Your task to perform on an android device: change notification settings in the gmail app Image 0: 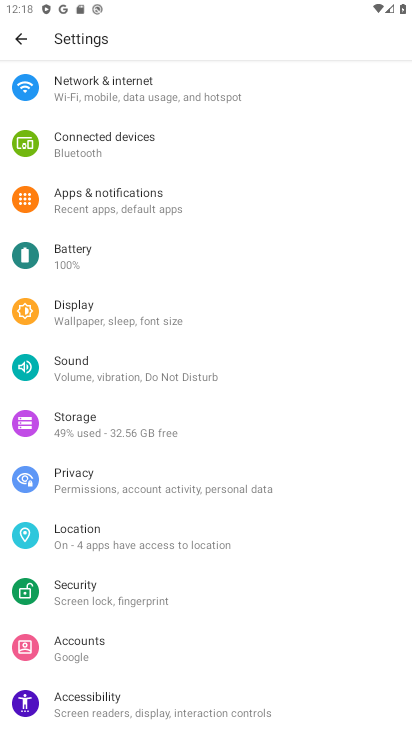
Step 0: click (116, 210)
Your task to perform on an android device: change notification settings in the gmail app Image 1: 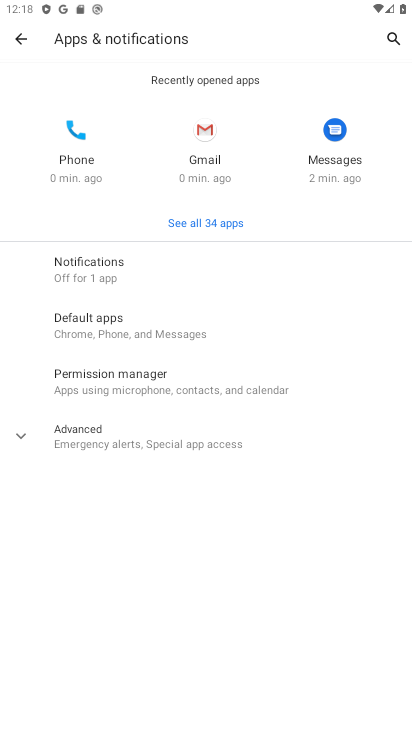
Step 1: drag from (114, 406) to (156, 567)
Your task to perform on an android device: change notification settings in the gmail app Image 2: 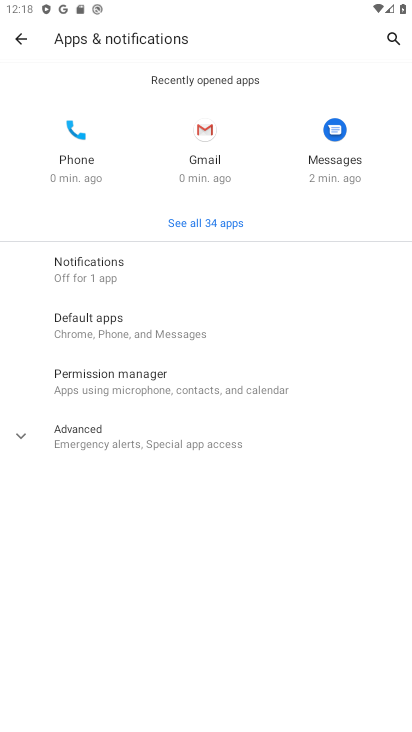
Step 2: press home button
Your task to perform on an android device: change notification settings in the gmail app Image 3: 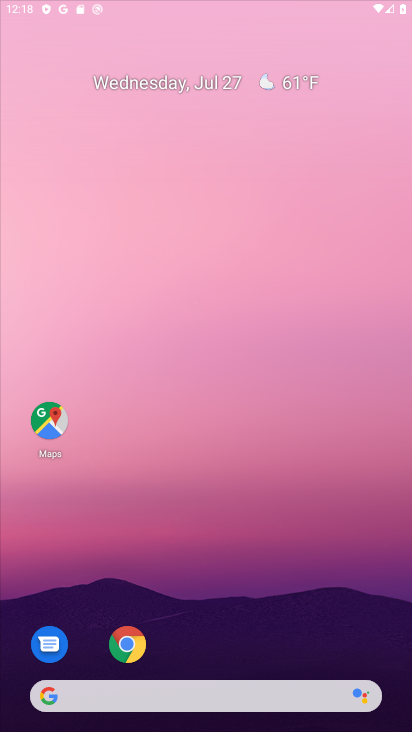
Step 3: drag from (212, 651) to (263, 143)
Your task to perform on an android device: change notification settings in the gmail app Image 4: 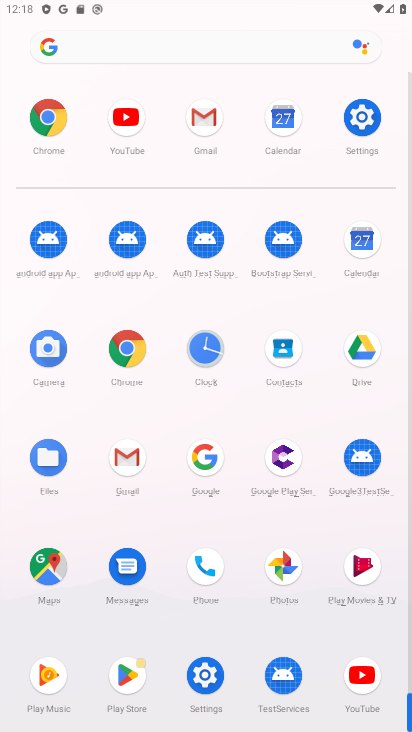
Step 4: click (116, 458)
Your task to perform on an android device: change notification settings in the gmail app Image 5: 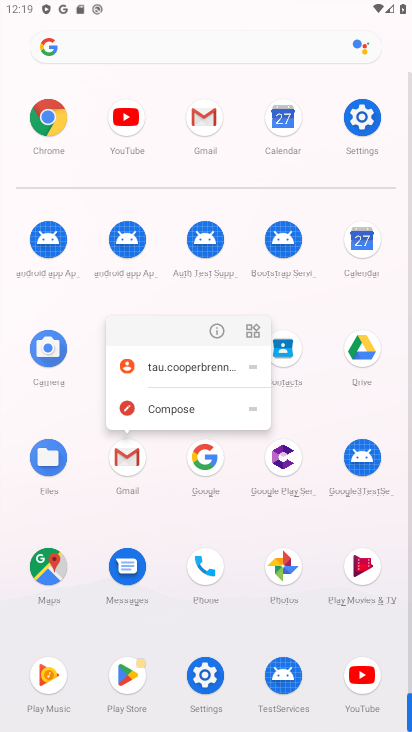
Step 5: click (221, 331)
Your task to perform on an android device: change notification settings in the gmail app Image 6: 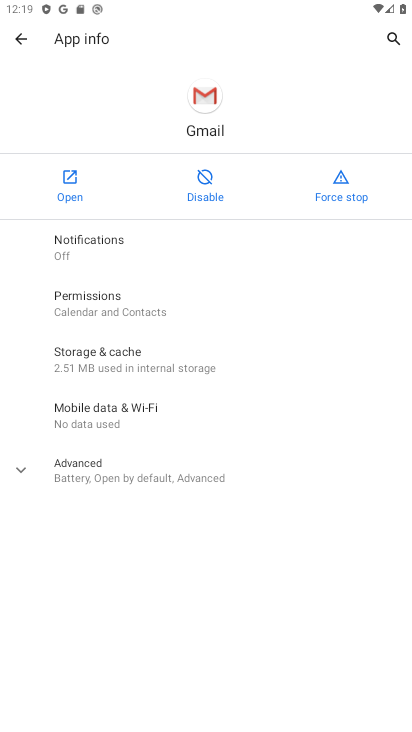
Step 6: click (70, 184)
Your task to perform on an android device: change notification settings in the gmail app Image 7: 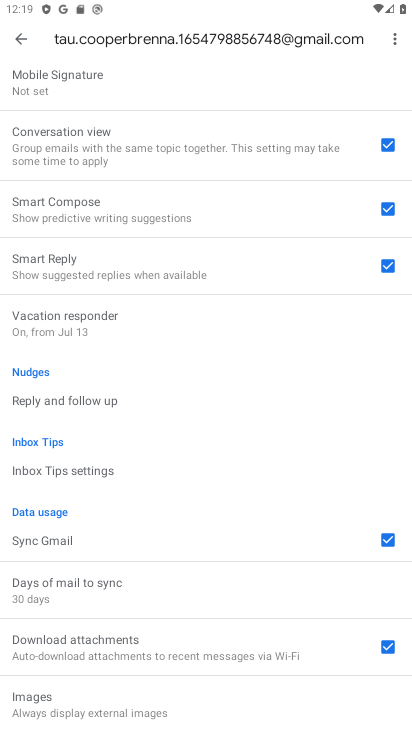
Step 7: drag from (217, 636) to (236, 392)
Your task to perform on an android device: change notification settings in the gmail app Image 8: 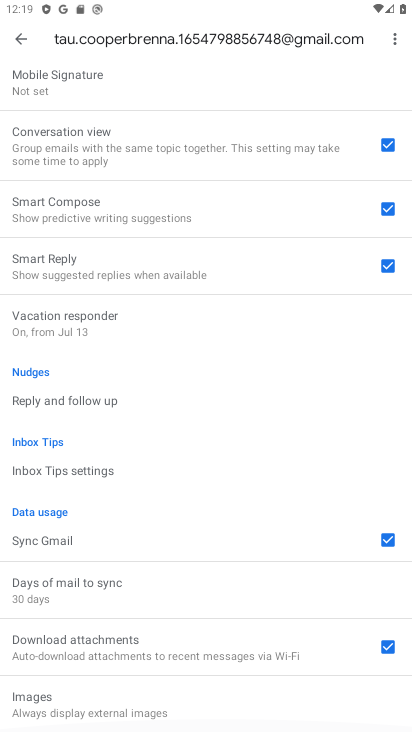
Step 8: drag from (229, 335) to (189, 689)
Your task to perform on an android device: change notification settings in the gmail app Image 9: 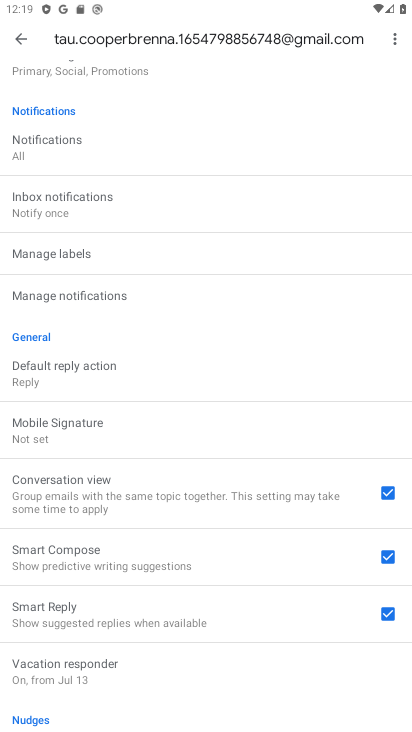
Step 9: click (113, 291)
Your task to perform on an android device: change notification settings in the gmail app Image 10: 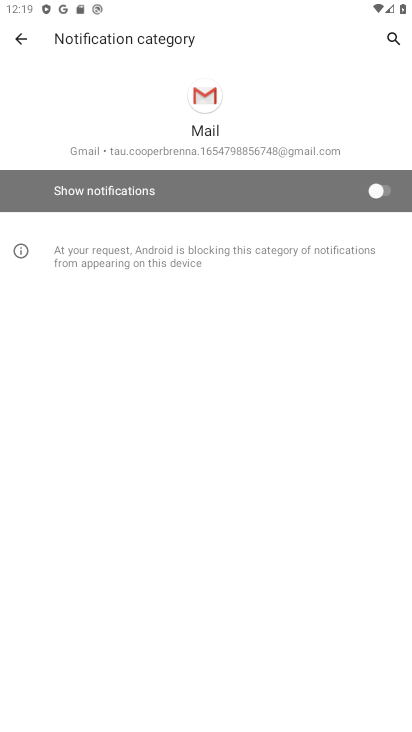
Step 10: drag from (222, 564) to (278, 268)
Your task to perform on an android device: change notification settings in the gmail app Image 11: 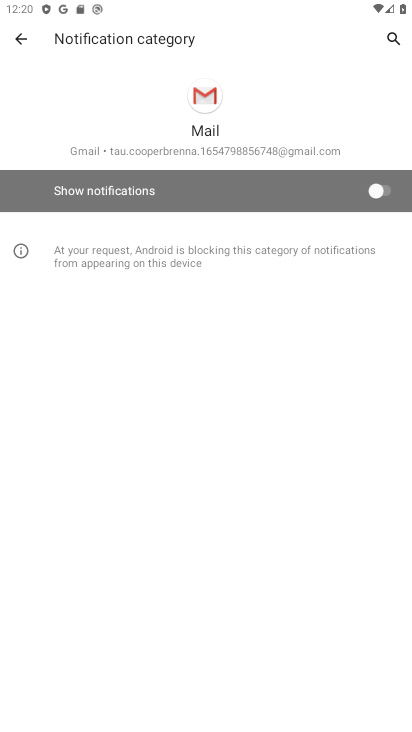
Step 11: click (354, 197)
Your task to perform on an android device: change notification settings in the gmail app Image 12: 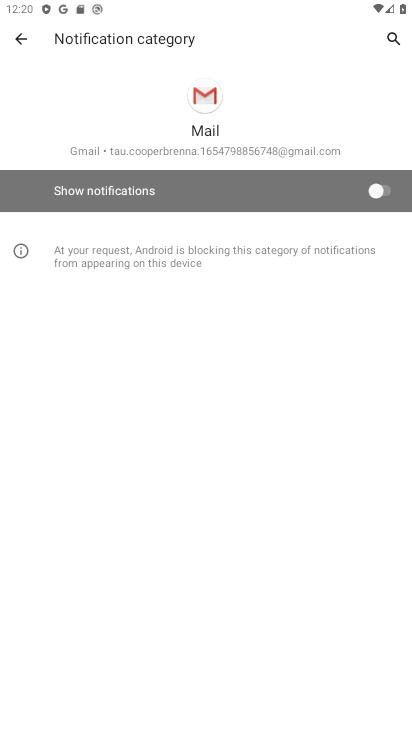
Step 12: task complete